Your task to perform on an android device: Open Android settings Image 0: 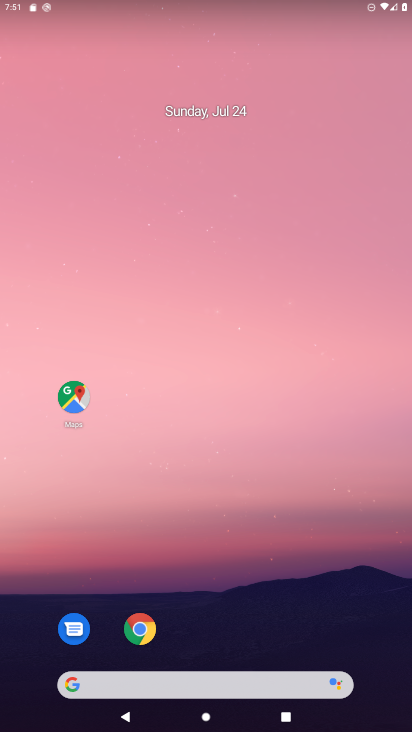
Step 0: drag from (329, 626) to (203, 20)
Your task to perform on an android device: Open Android settings Image 1: 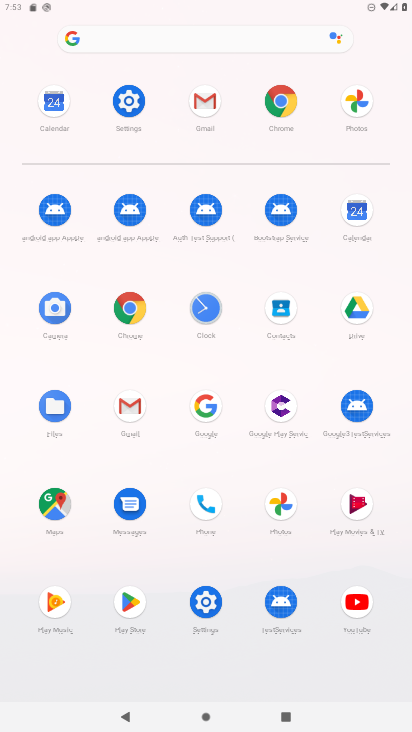
Step 1: click (206, 604)
Your task to perform on an android device: Open Android settings Image 2: 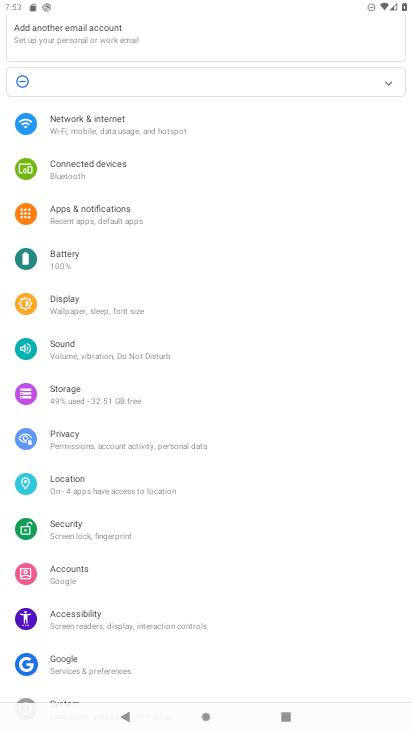
Step 2: task complete